Your task to perform on an android device: Go to Google maps Image 0: 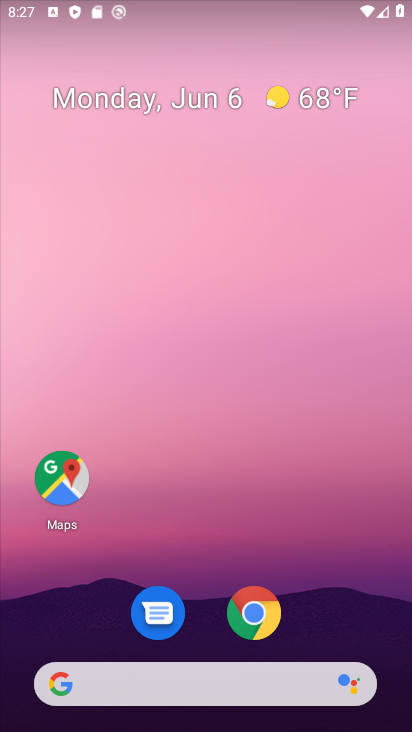
Step 0: click (53, 478)
Your task to perform on an android device: Go to Google maps Image 1: 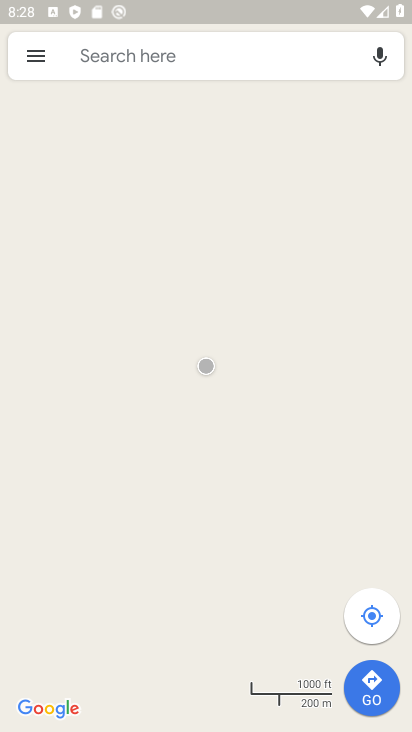
Step 1: task complete